Your task to perform on an android device: all mails in gmail Image 0: 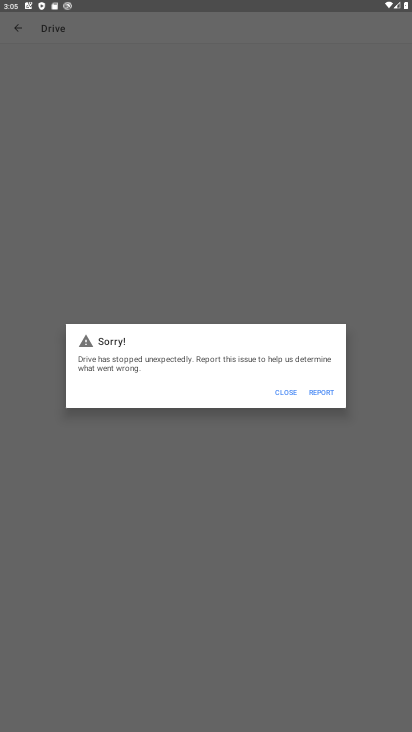
Step 0: press home button
Your task to perform on an android device: all mails in gmail Image 1: 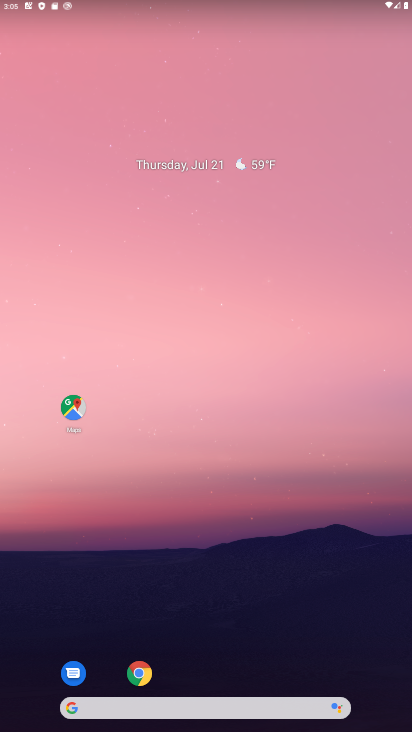
Step 1: drag from (234, 649) to (76, 38)
Your task to perform on an android device: all mails in gmail Image 2: 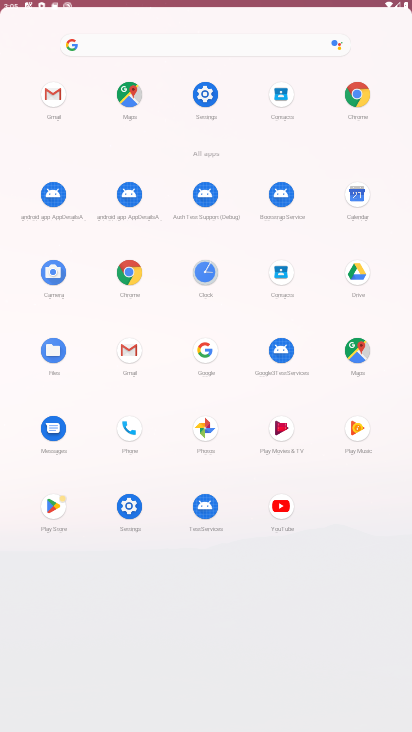
Step 2: click (54, 133)
Your task to perform on an android device: all mails in gmail Image 3: 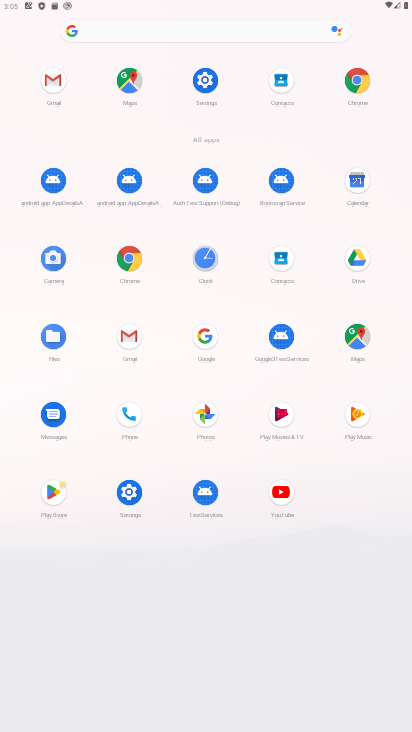
Step 3: click (48, 85)
Your task to perform on an android device: all mails in gmail Image 4: 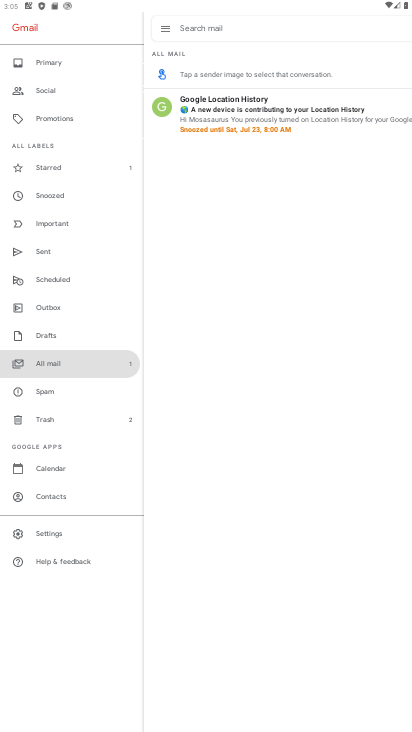
Step 4: task complete